Your task to perform on an android device: Go to ESPN.com Image 0: 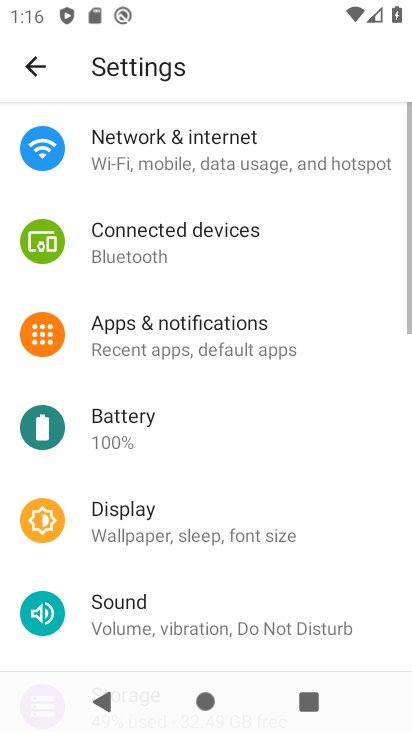
Step 0: press home button
Your task to perform on an android device: Go to ESPN.com Image 1: 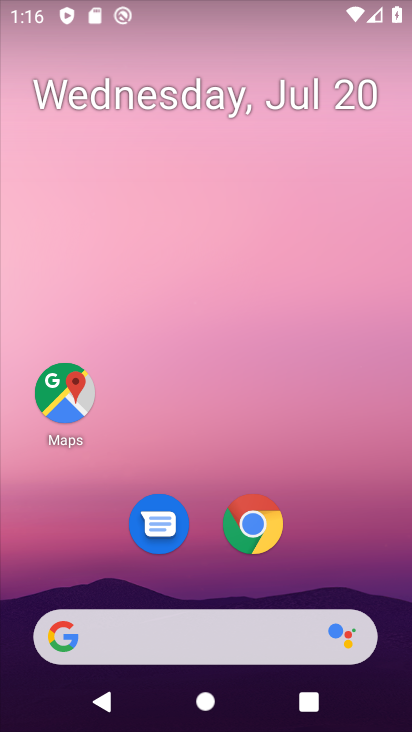
Step 1: click (248, 634)
Your task to perform on an android device: Go to ESPN.com Image 2: 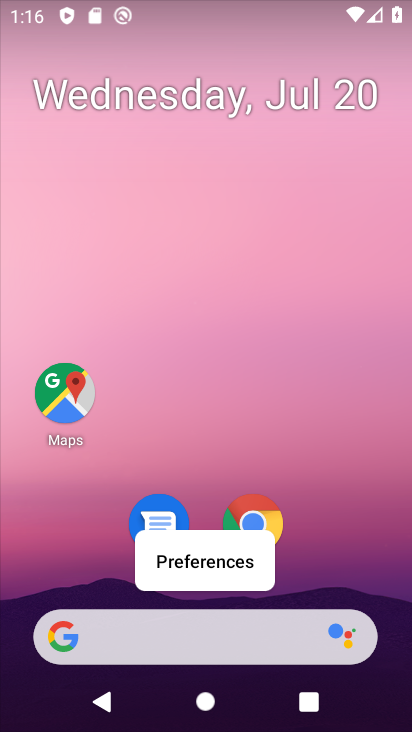
Step 2: click (93, 644)
Your task to perform on an android device: Go to ESPN.com Image 3: 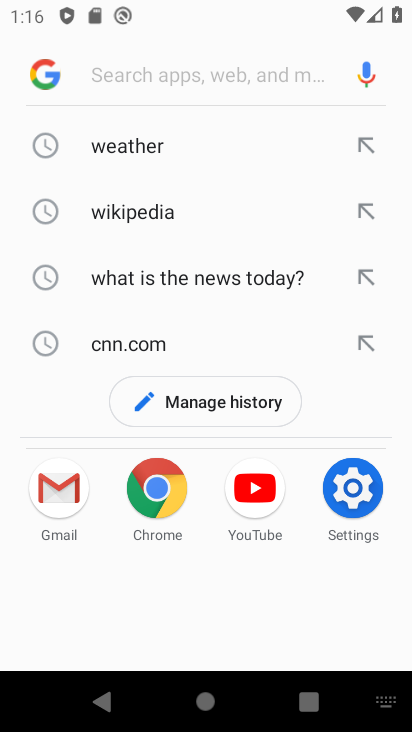
Step 3: type "espn.com"
Your task to perform on an android device: Go to ESPN.com Image 4: 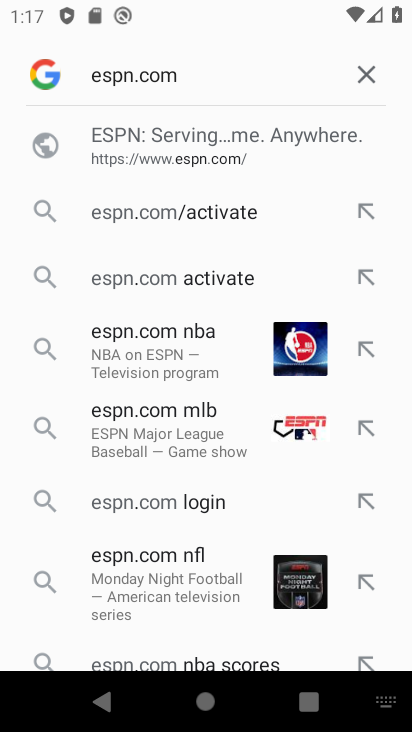
Step 4: click (222, 155)
Your task to perform on an android device: Go to ESPN.com Image 5: 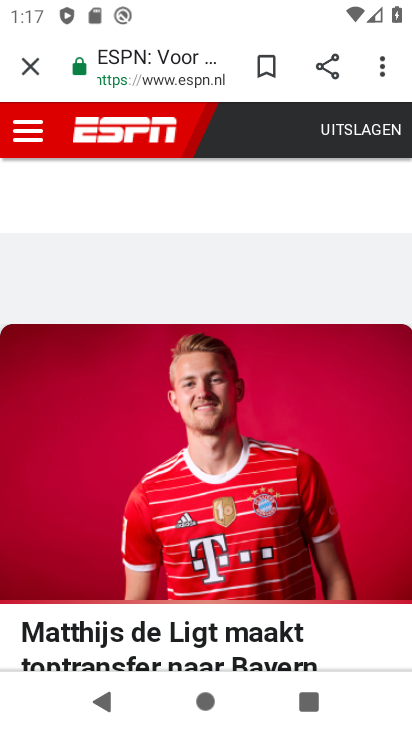
Step 5: task complete